Your task to perform on an android device: Open Chrome and go to the settings page Image 0: 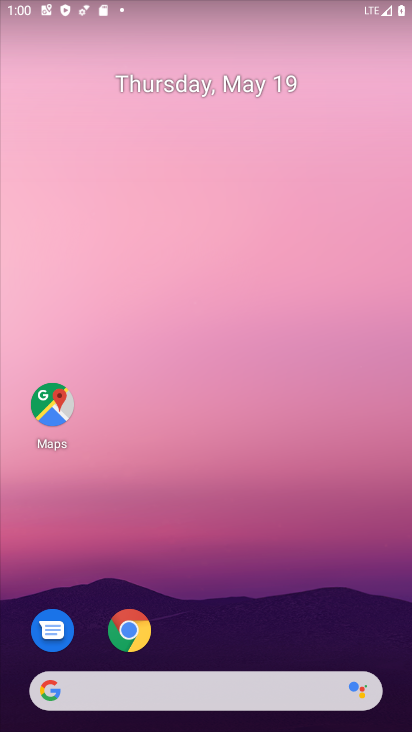
Step 0: drag from (227, 663) to (225, 139)
Your task to perform on an android device: Open Chrome and go to the settings page Image 1: 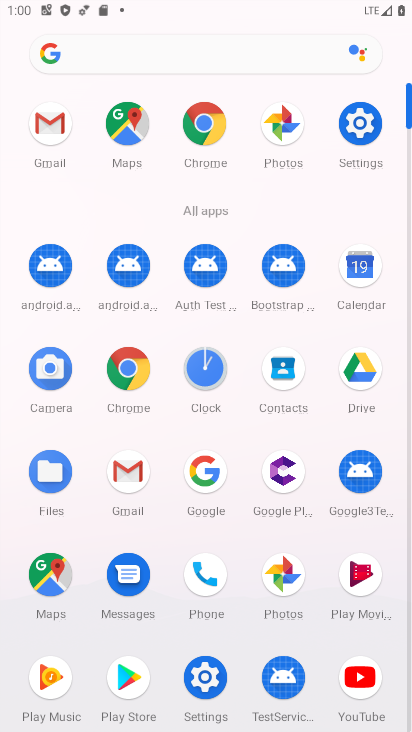
Step 1: click (107, 351)
Your task to perform on an android device: Open Chrome and go to the settings page Image 2: 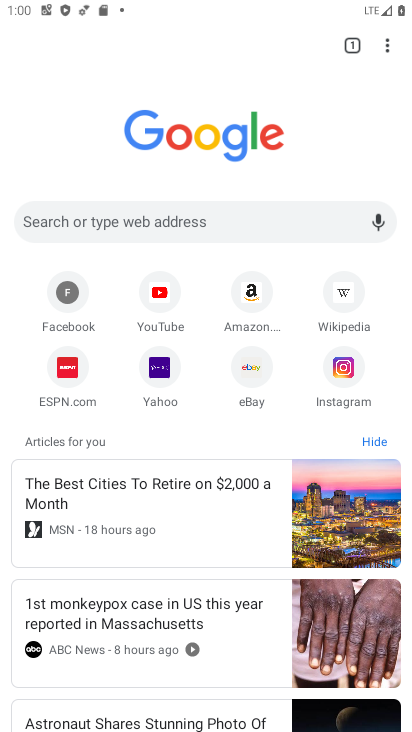
Step 2: click (389, 49)
Your task to perform on an android device: Open Chrome and go to the settings page Image 3: 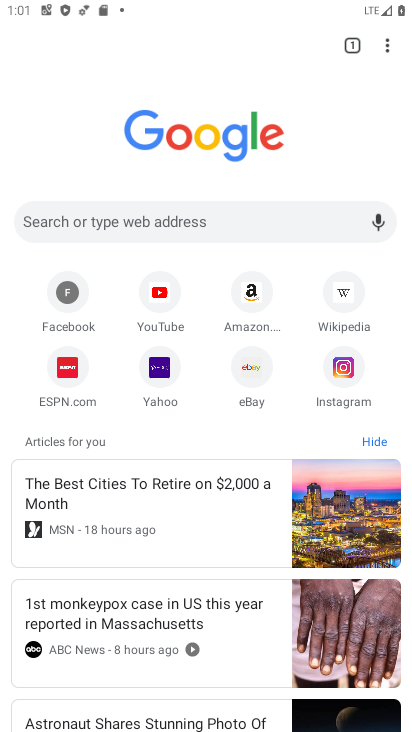
Step 3: task complete